Your task to perform on an android device: search for starred emails in the gmail app Image 0: 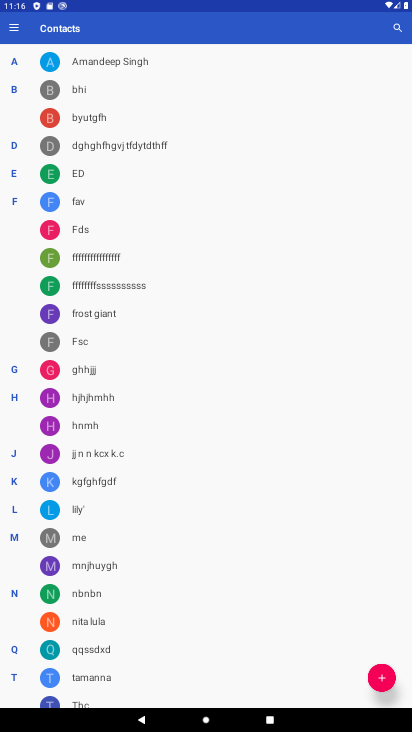
Step 0: press back button
Your task to perform on an android device: search for starred emails in the gmail app Image 1: 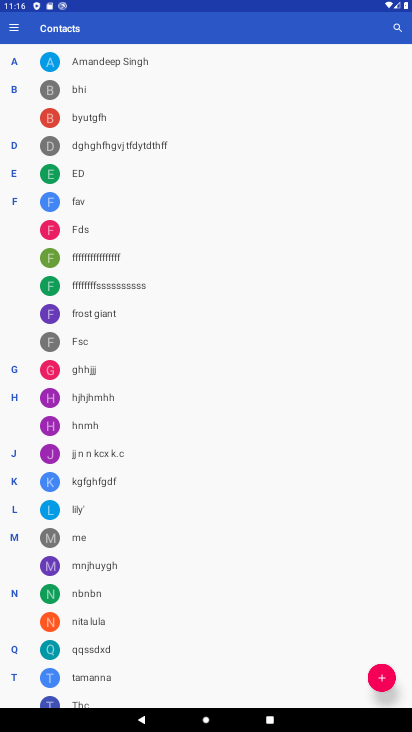
Step 1: press back button
Your task to perform on an android device: search for starred emails in the gmail app Image 2: 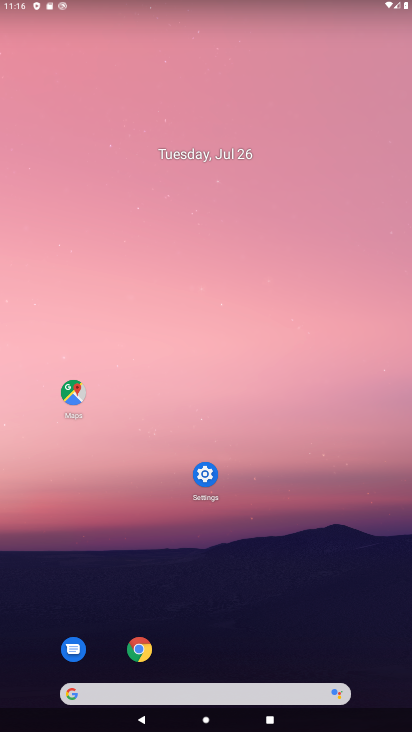
Step 2: drag from (209, 393) to (192, 202)
Your task to perform on an android device: search for starred emails in the gmail app Image 3: 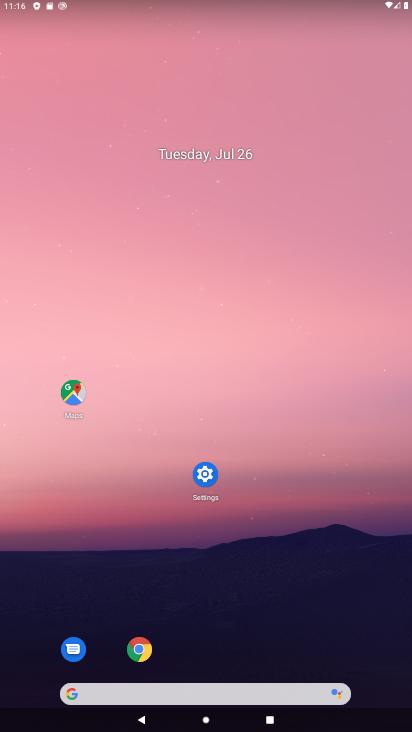
Step 3: drag from (220, 123) to (205, 41)
Your task to perform on an android device: search for starred emails in the gmail app Image 4: 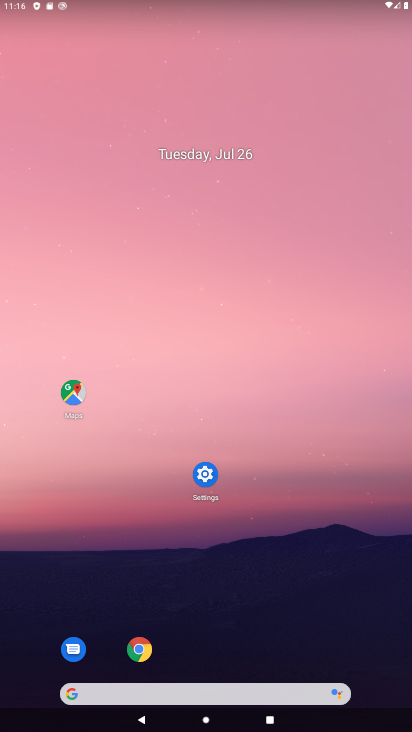
Step 4: drag from (241, 67) to (247, 0)
Your task to perform on an android device: search for starred emails in the gmail app Image 5: 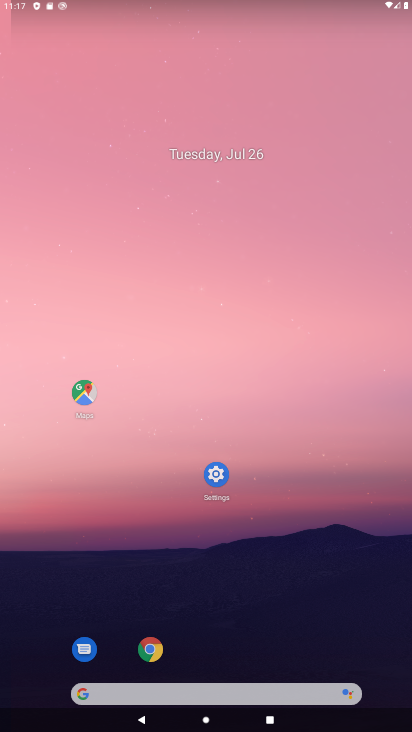
Step 5: drag from (232, 28) to (319, 106)
Your task to perform on an android device: search for starred emails in the gmail app Image 6: 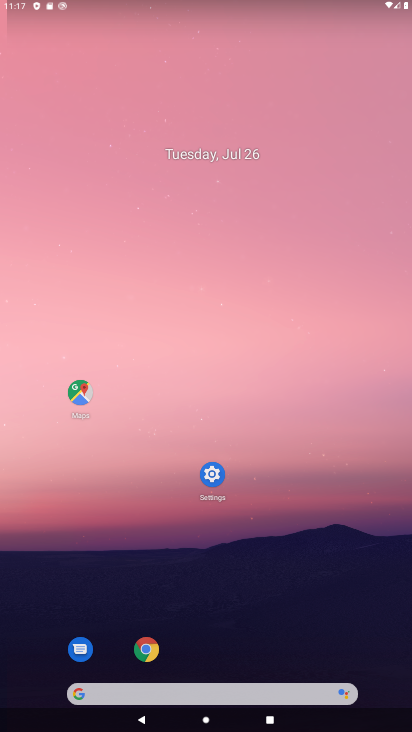
Step 6: click (199, 121)
Your task to perform on an android device: search for starred emails in the gmail app Image 7: 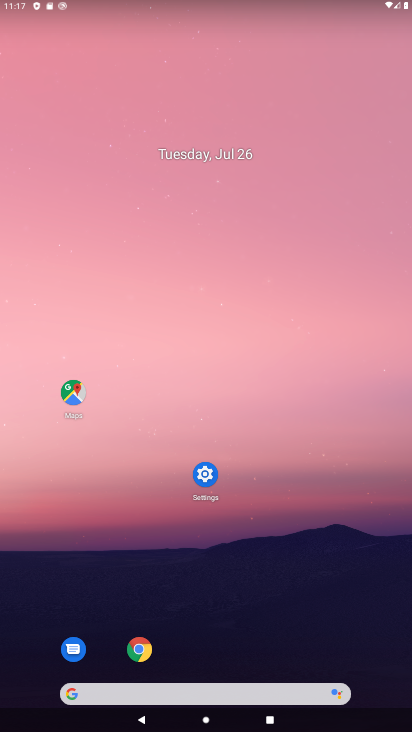
Step 7: drag from (196, 534) to (205, 94)
Your task to perform on an android device: search for starred emails in the gmail app Image 8: 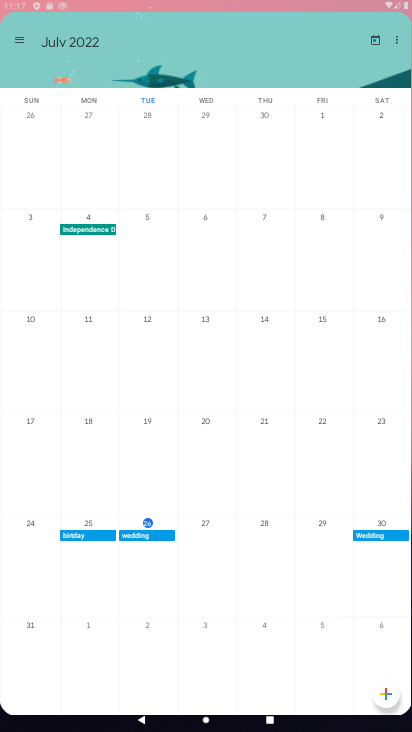
Step 8: click (162, 107)
Your task to perform on an android device: search for starred emails in the gmail app Image 9: 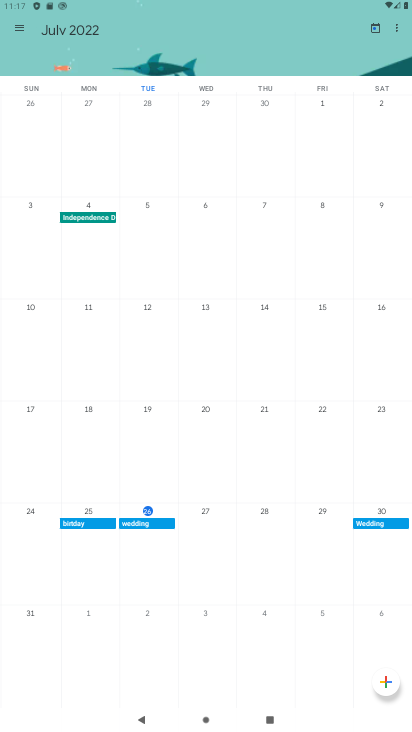
Step 9: drag from (219, 348) to (218, 173)
Your task to perform on an android device: search for starred emails in the gmail app Image 10: 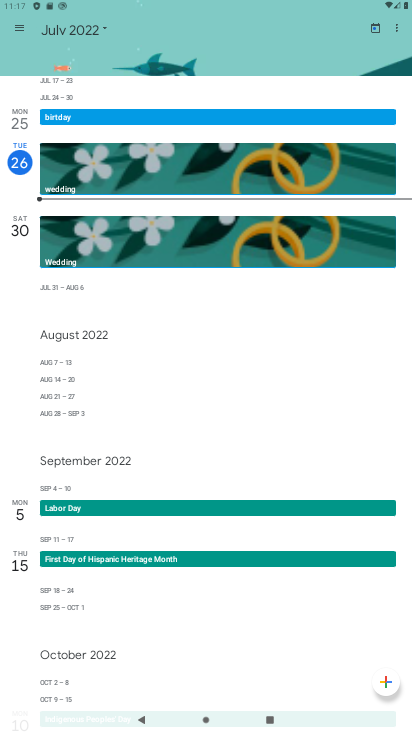
Step 10: press back button
Your task to perform on an android device: search for starred emails in the gmail app Image 11: 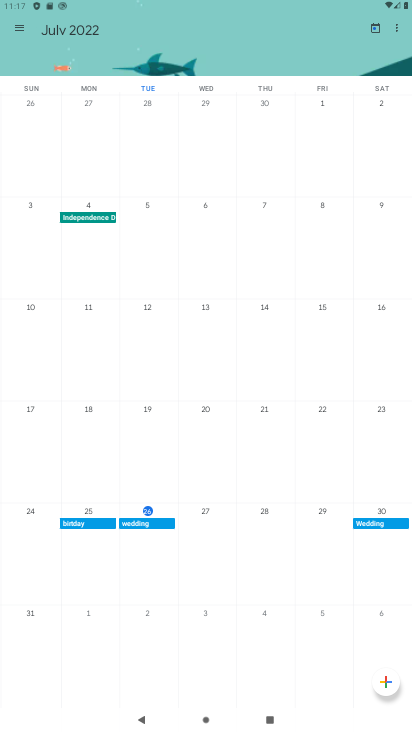
Step 11: press back button
Your task to perform on an android device: search for starred emails in the gmail app Image 12: 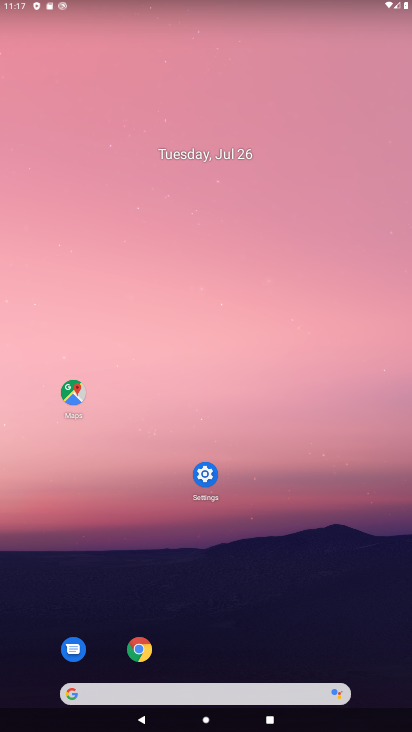
Step 12: click (229, 127)
Your task to perform on an android device: search for starred emails in the gmail app Image 13: 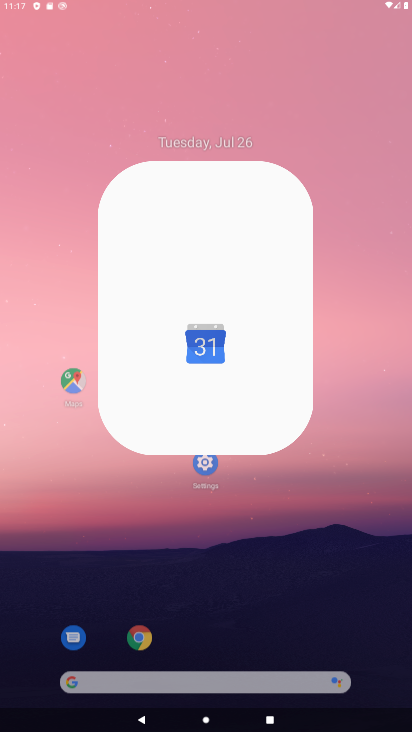
Step 13: click (173, 5)
Your task to perform on an android device: search for starred emails in the gmail app Image 14: 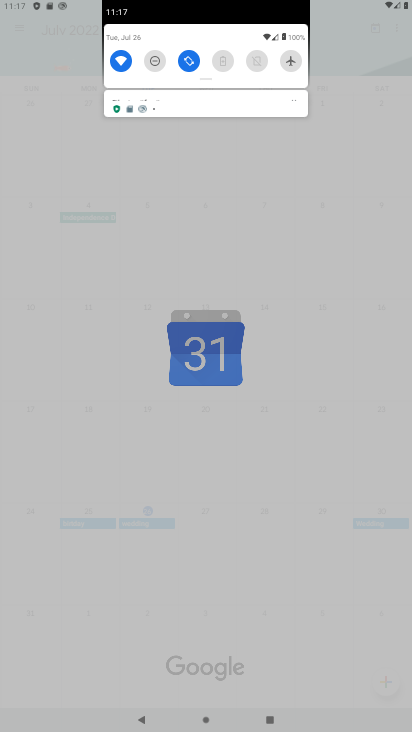
Step 14: click (275, 93)
Your task to perform on an android device: search for starred emails in the gmail app Image 15: 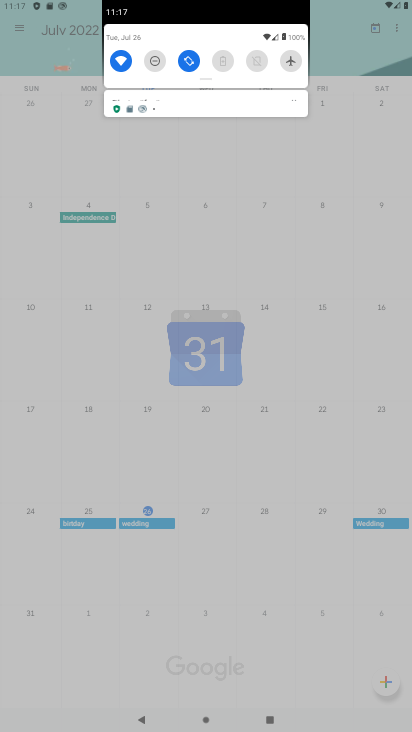
Step 15: click (282, 0)
Your task to perform on an android device: search for starred emails in the gmail app Image 16: 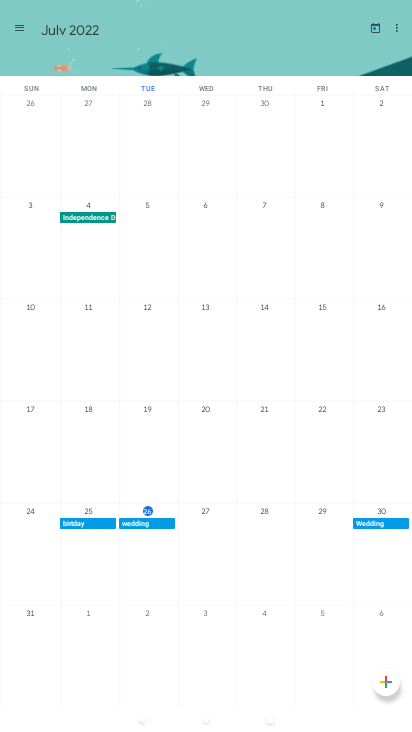
Step 16: press back button
Your task to perform on an android device: search for starred emails in the gmail app Image 17: 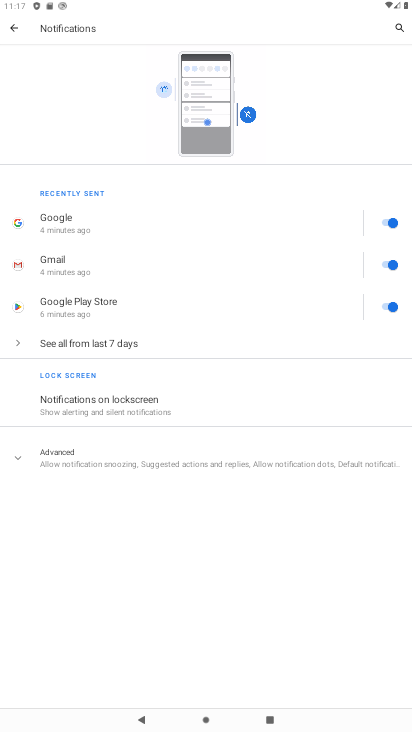
Step 17: press back button
Your task to perform on an android device: search for starred emails in the gmail app Image 18: 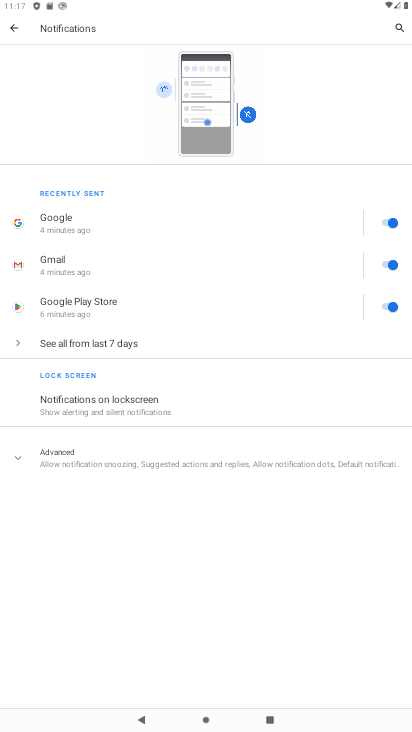
Step 18: press home button
Your task to perform on an android device: search for starred emails in the gmail app Image 19: 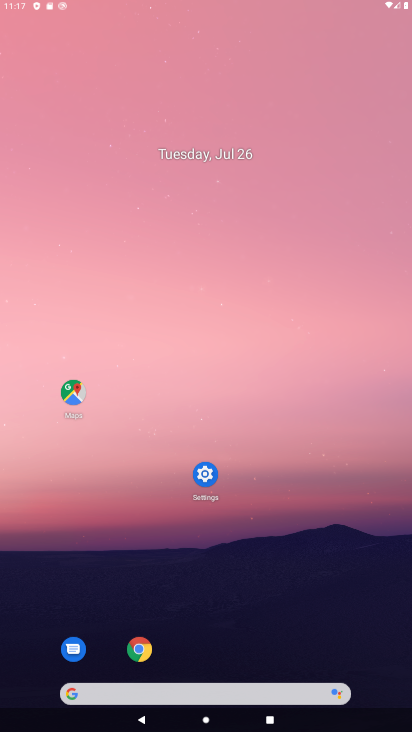
Step 19: press back button
Your task to perform on an android device: search for starred emails in the gmail app Image 20: 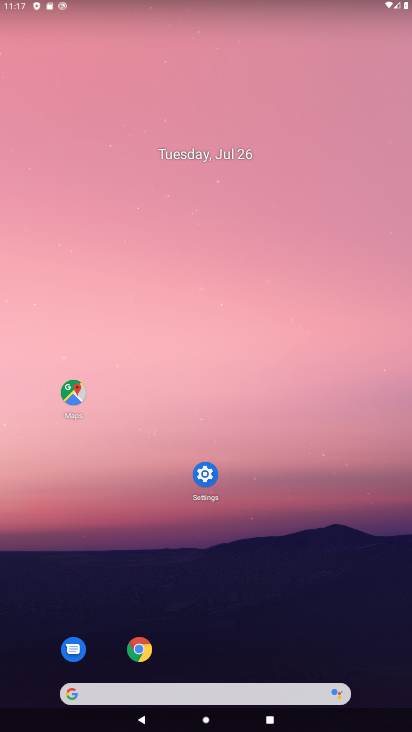
Step 20: drag from (276, 538) to (233, 217)
Your task to perform on an android device: search for starred emails in the gmail app Image 21: 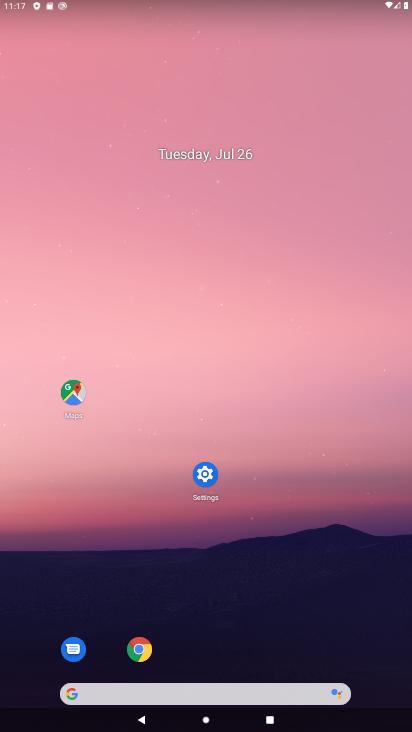
Step 21: drag from (213, 601) to (175, 125)
Your task to perform on an android device: search for starred emails in the gmail app Image 22: 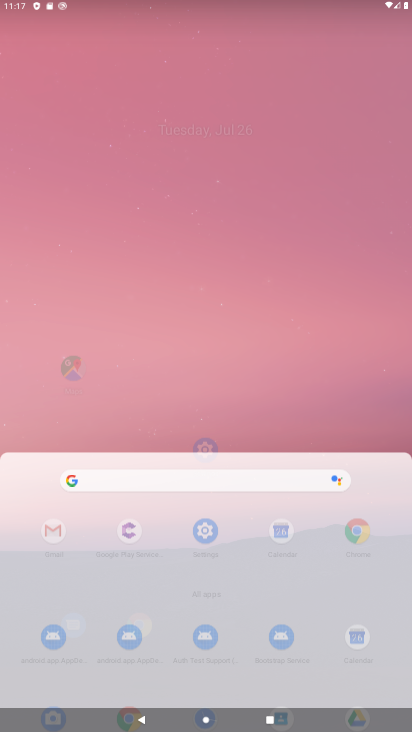
Step 22: drag from (260, 531) to (204, 270)
Your task to perform on an android device: search for starred emails in the gmail app Image 23: 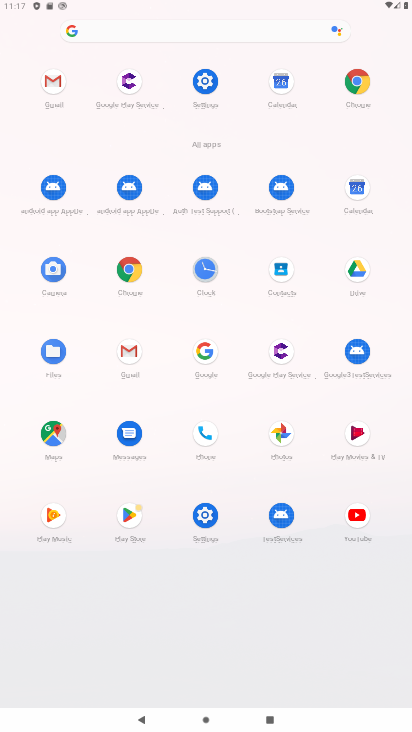
Step 23: click (125, 360)
Your task to perform on an android device: search for starred emails in the gmail app Image 24: 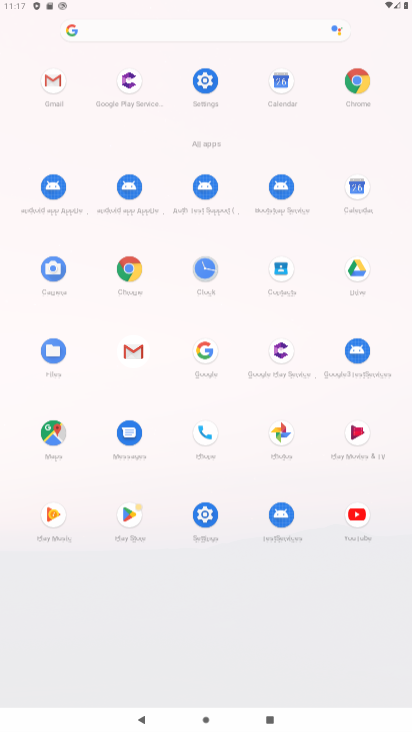
Step 24: click (125, 359)
Your task to perform on an android device: search for starred emails in the gmail app Image 25: 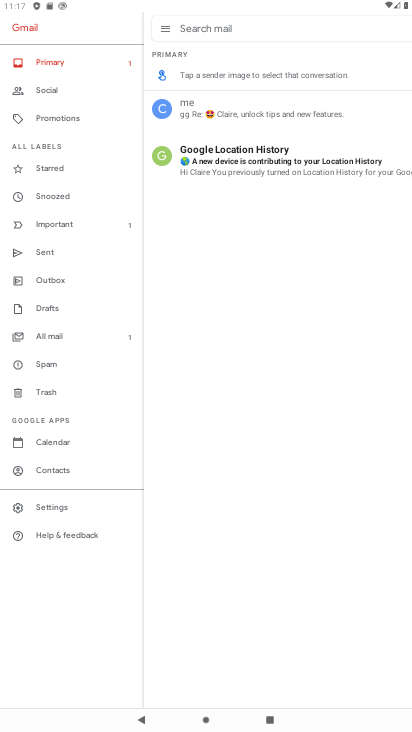
Step 25: click (126, 357)
Your task to perform on an android device: search for starred emails in the gmail app Image 26: 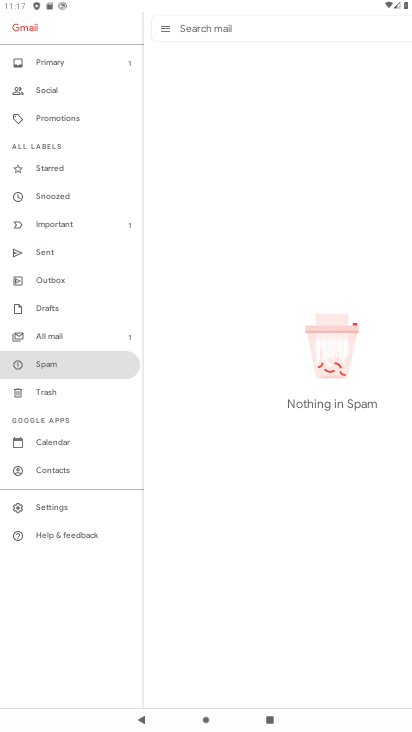
Step 26: click (50, 159)
Your task to perform on an android device: search for starred emails in the gmail app Image 27: 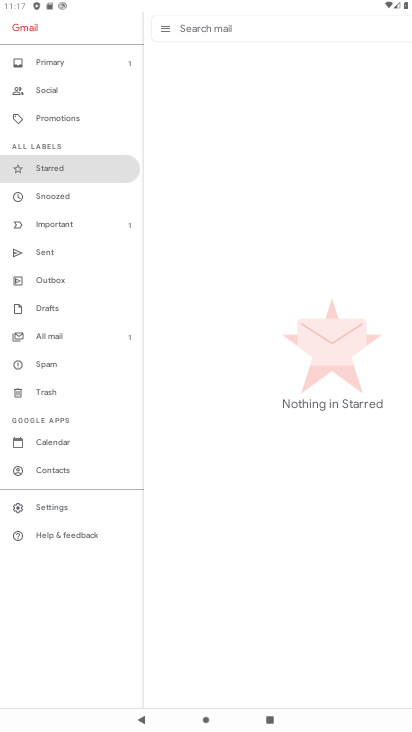
Step 27: task complete